Your task to perform on an android device: Open Chrome and go to settings Image 0: 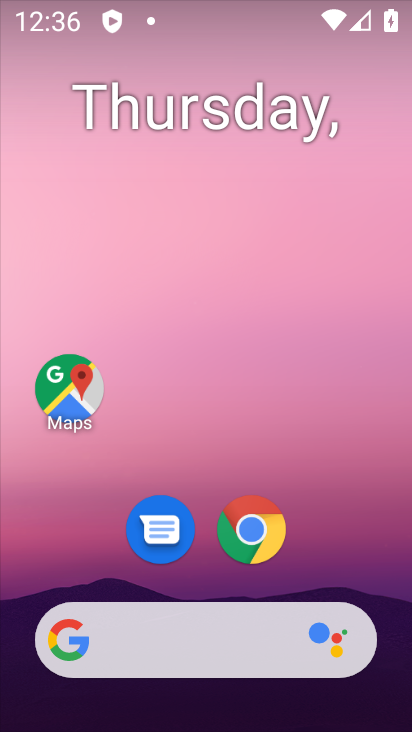
Step 0: click (251, 529)
Your task to perform on an android device: Open Chrome and go to settings Image 1: 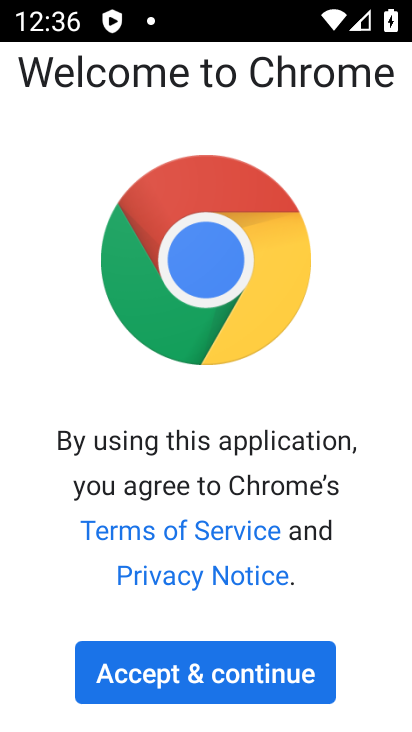
Step 1: click (208, 658)
Your task to perform on an android device: Open Chrome and go to settings Image 2: 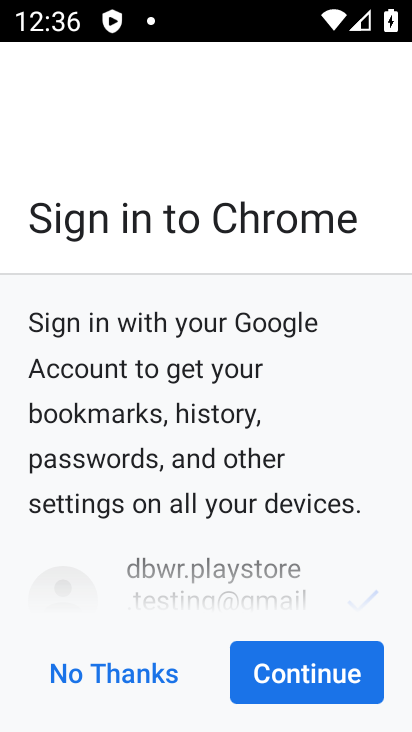
Step 2: click (294, 676)
Your task to perform on an android device: Open Chrome and go to settings Image 3: 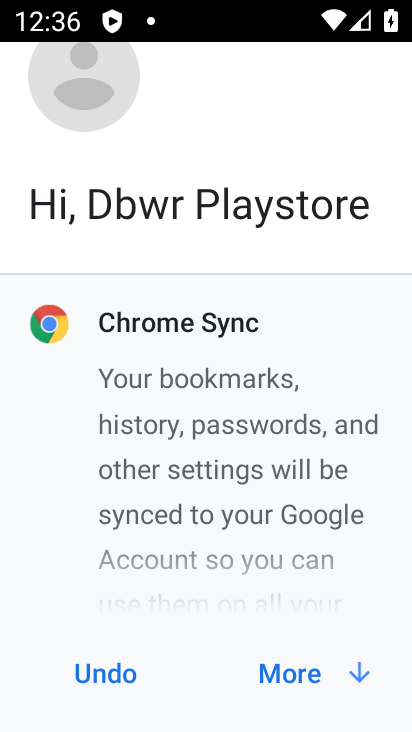
Step 3: click (294, 676)
Your task to perform on an android device: Open Chrome and go to settings Image 4: 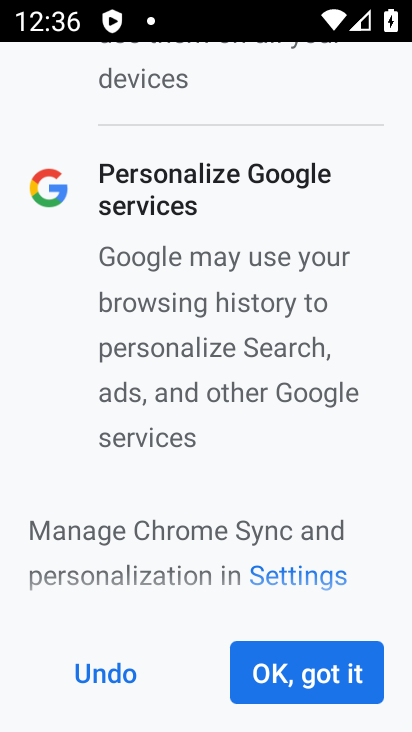
Step 4: click (294, 676)
Your task to perform on an android device: Open Chrome and go to settings Image 5: 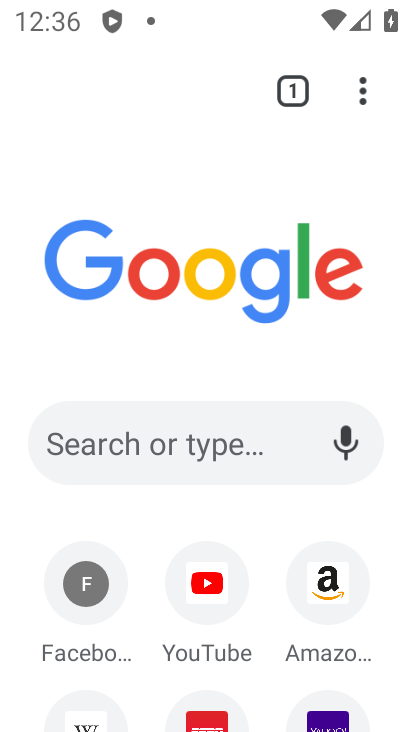
Step 5: click (362, 91)
Your task to perform on an android device: Open Chrome and go to settings Image 6: 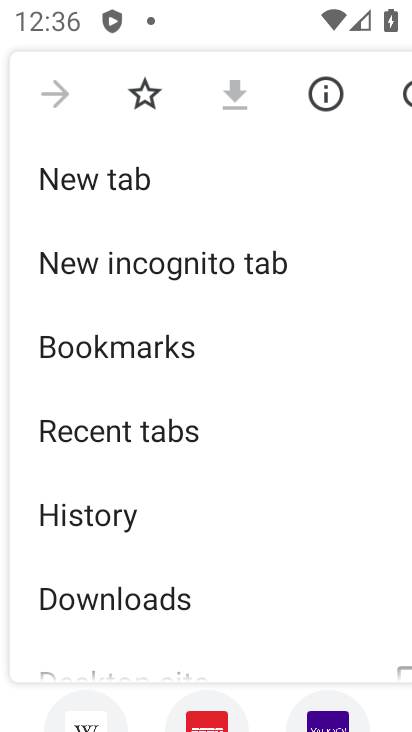
Step 6: drag from (172, 481) to (214, 383)
Your task to perform on an android device: Open Chrome and go to settings Image 7: 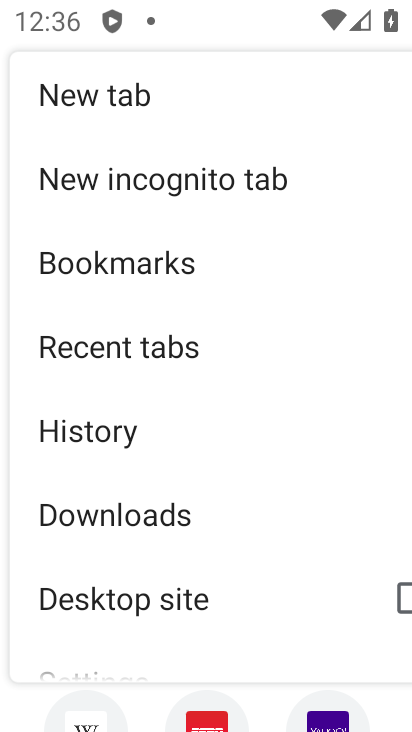
Step 7: drag from (196, 556) to (247, 456)
Your task to perform on an android device: Open Chrome and go to settings Image 8: 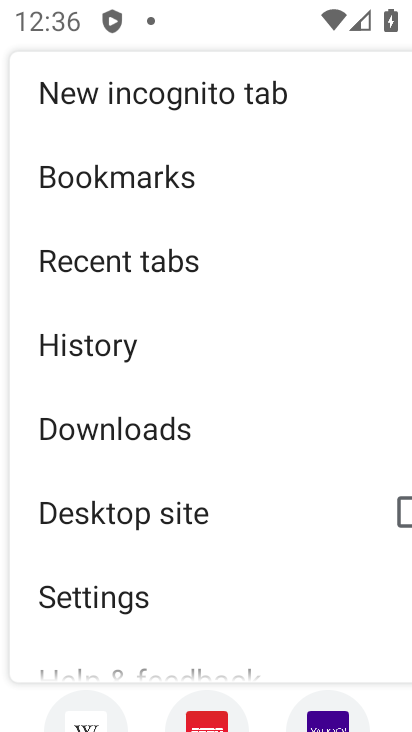
Step 8: drag from (186, 580) to (287, 439)
Your task to perform on an android device: Open Chrome and go to settings Image 9: 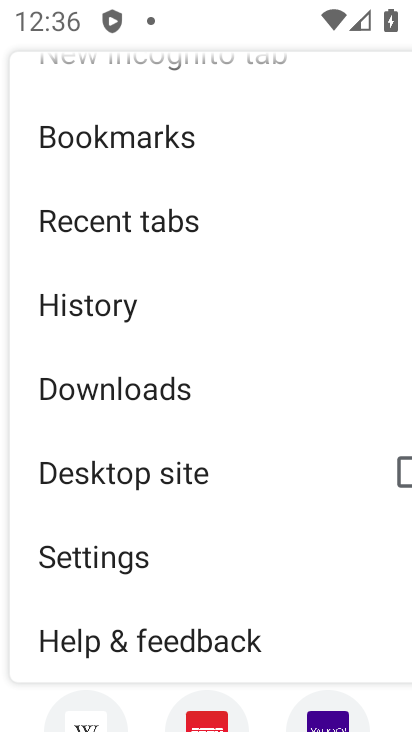
Step 9: click (130, 558)
Your task to perform on an android device: Open Chrome and go to settings Image 10: 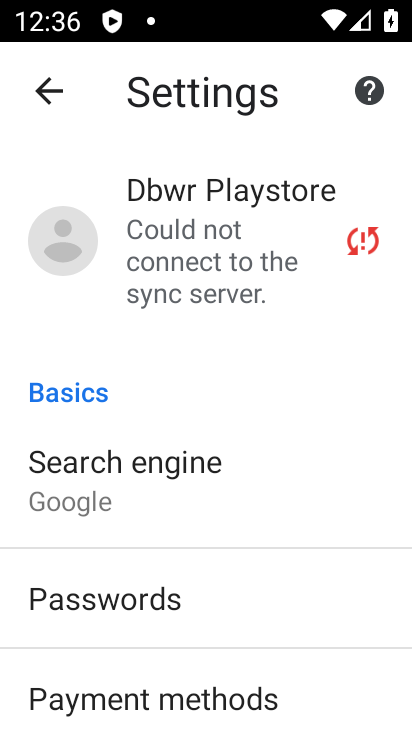
Step 10: task complete